Your task to perform on an android device: turn on priority inbox in the gmail app Image 0: 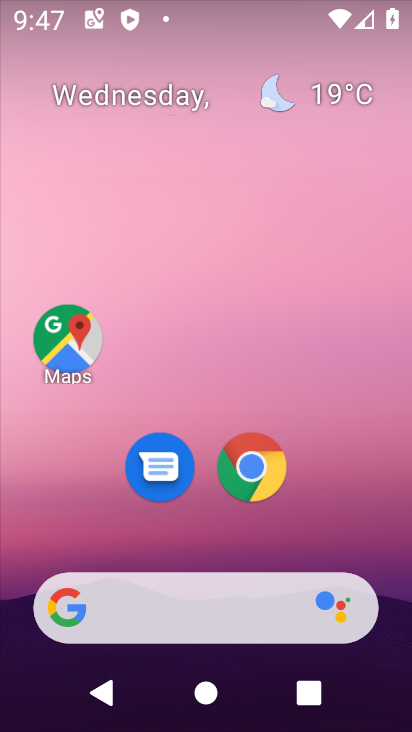
Step 0: drag from (334, 513) to (226, 79)
Your task to perform on an android device: turn on priority inbox in the gmail app Image 1: 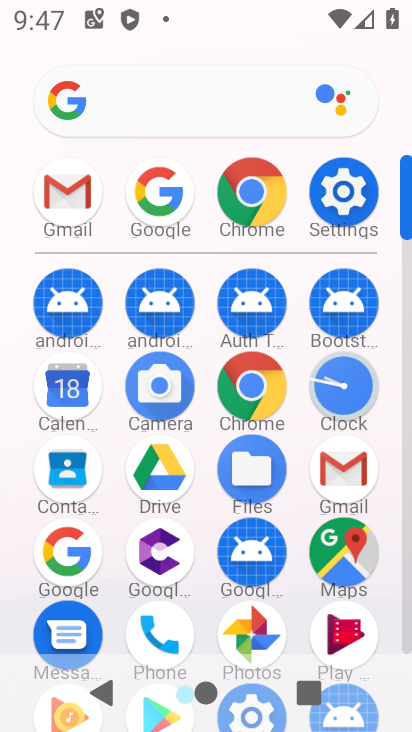
Step 1: click (351, 463)
Your task to perform on an android device: turn on priority inbox in the gmail app Image 2: 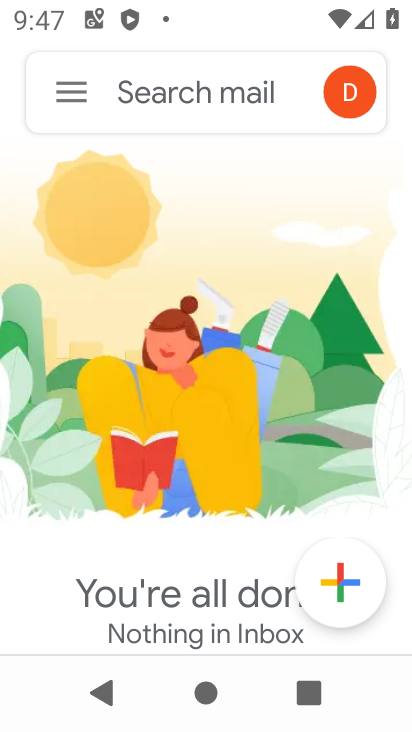
Step 2: click (69, 99)
Your task to perform on an android device: turn on priority inbox in the gmail app Image 3: 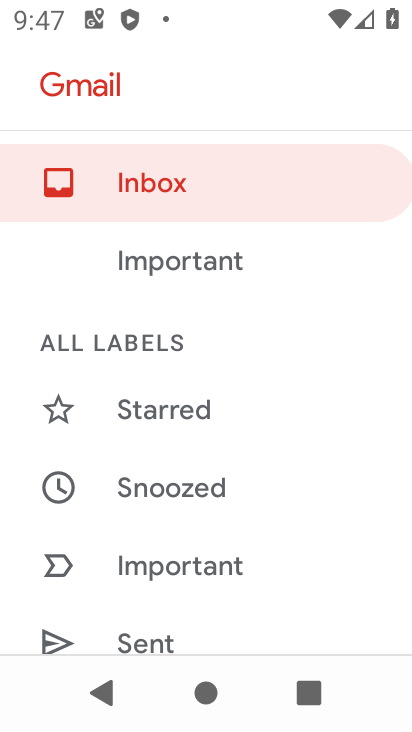
Step 3: drag from (145, 613) to (161, 82)
Your task to perform on an android device: turn on priority inbox in the gmail app Image 4: 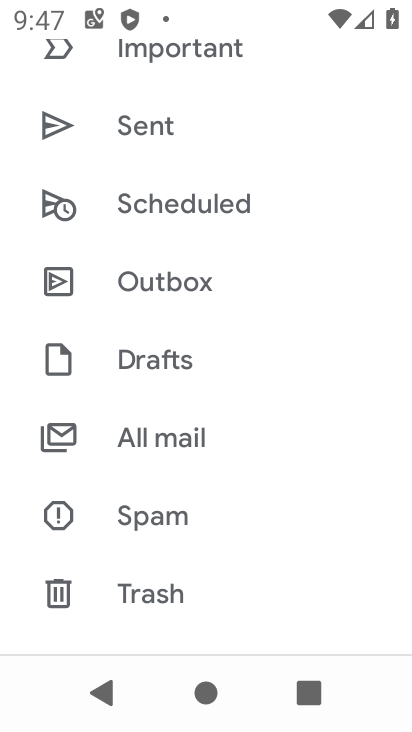
Step 4: drag from (201, 565) to (196, 97)
Your task to perform on an android device: turn on priority inbox in the gmail app Image 5: 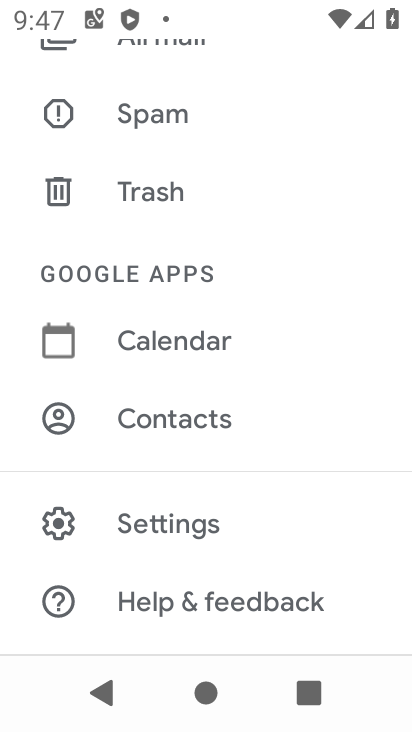
Step 5: click (193, 510)
Your task to perform on an android device: turn on priority inbox in the gmail app Image 6: 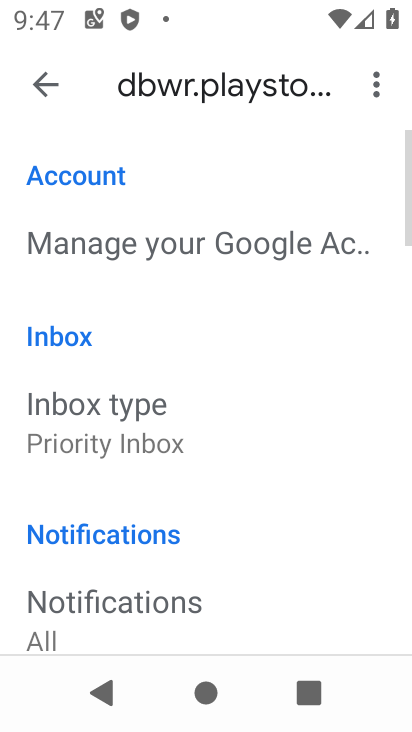
Step 6: click (130, 423)
Your task to perform on an android device: turn on priority inbox in the gmail app Image 7: 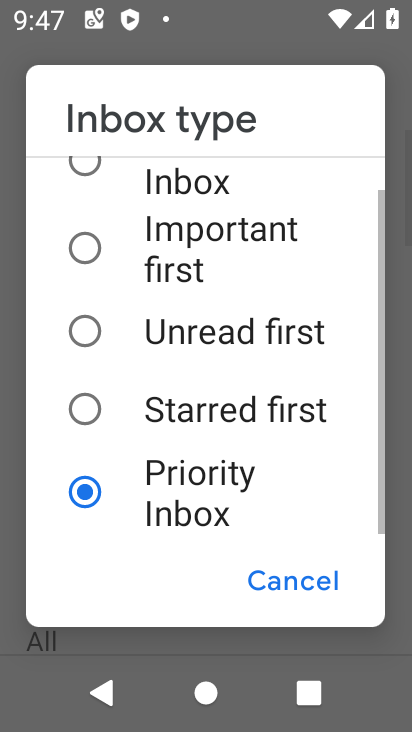
Step 7: task complete